Your task to perform on an android device: check google app version Image 0: 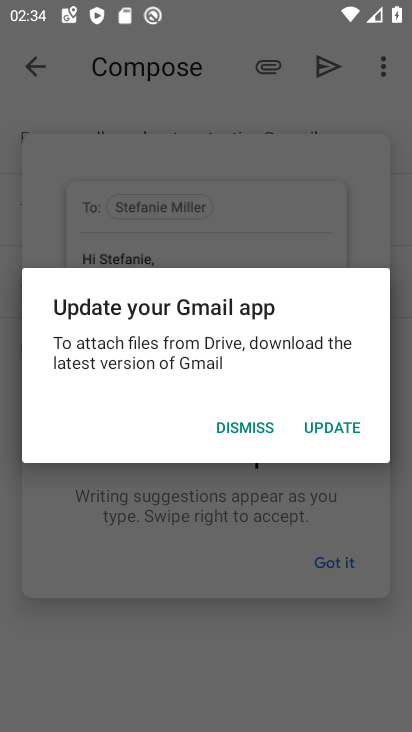
Step 0: press home button
Your task to perform on an android device: check google app version Image 1: 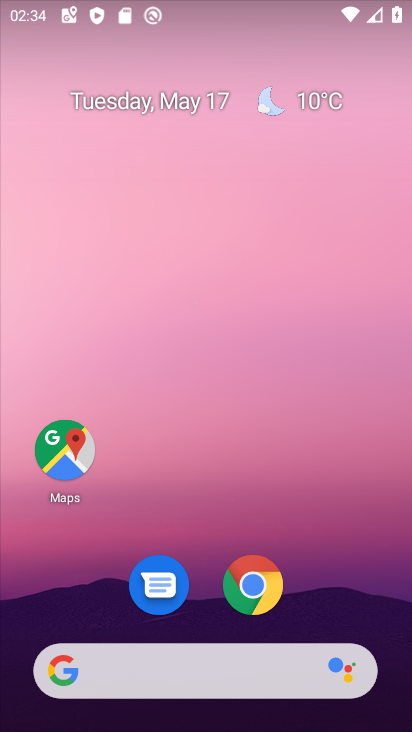
Step 1: click (157, 663)
Your task to perform on an android device: check google app version Image 2: 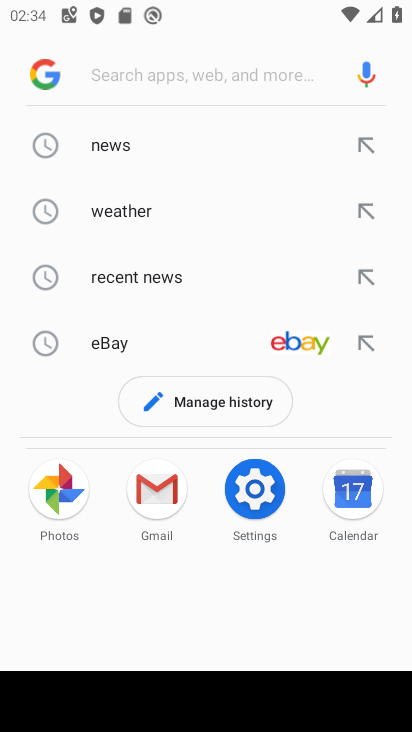
Step 2: click (47, 79)
Your task to perform on an android device: check google app version Image 3: 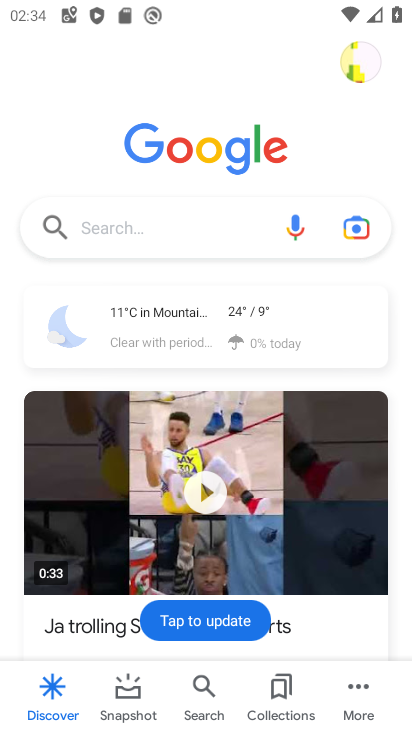
Step 3: click (350, 674)
Your task to perform on an android device: check google app version Image 4: 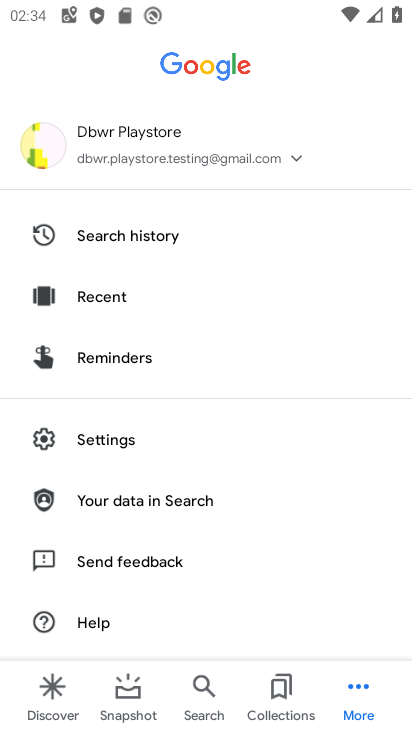
Step 4: click (132, 435)
Your task to perform on an android device: check google app version Image 5: 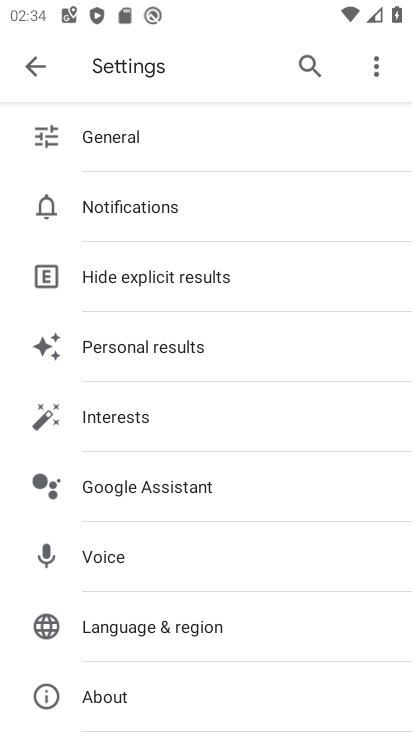
Step 5: click (180, 693)
Your task to perform on an android device: check google app version Image 6: 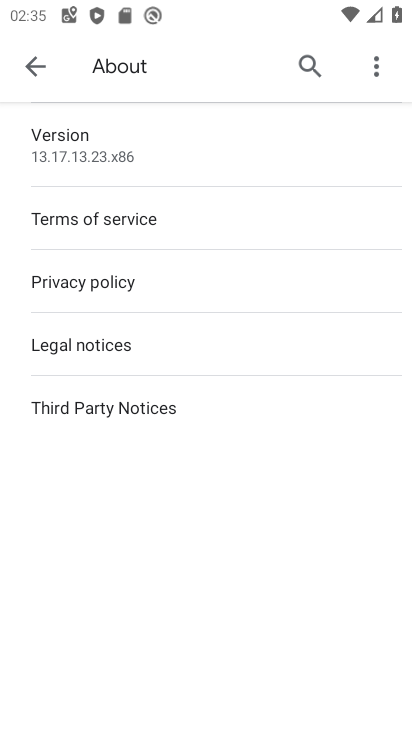
Step 6: task complete